Your task to perform on an android device: turn on translation in the chrome app Image 0: 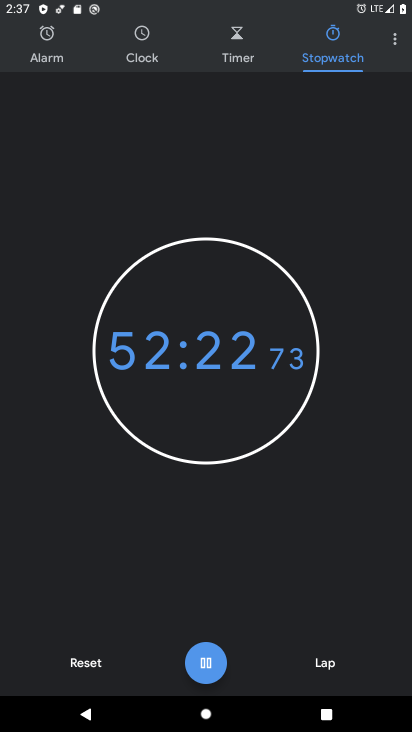
Step 0: press home button
Your task to perform on an android device: turn on translation in the chrome app Image 1: 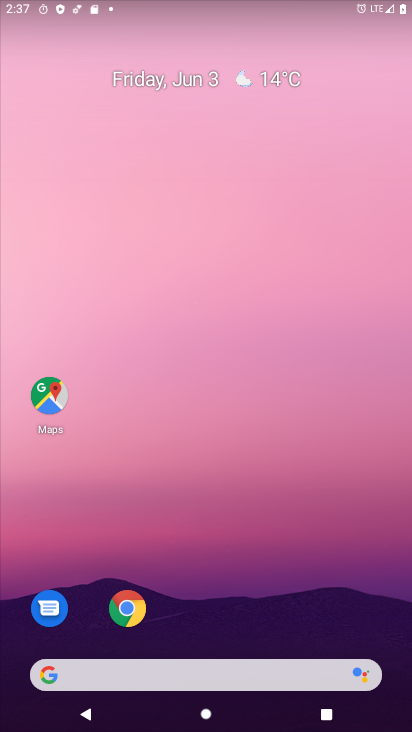
Step 1: click (132, 611)
Your task to perform on an android device: turn on translation in the chrome app Image 2: 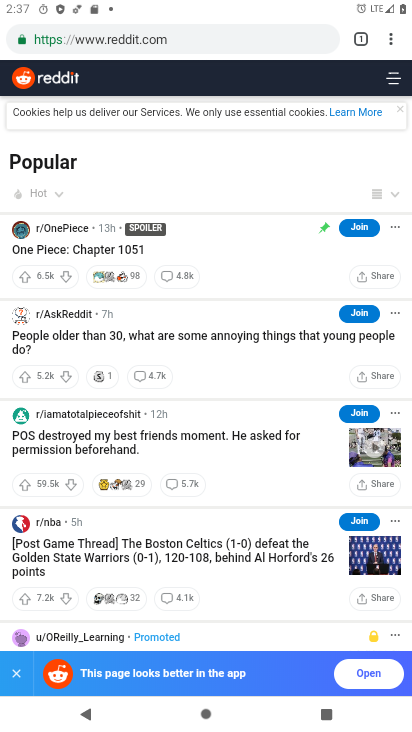
Step 2: drag from (389, 36) to (275, 514)
Your task to perform on an android device: turn on translation in the chrome app Image 3: 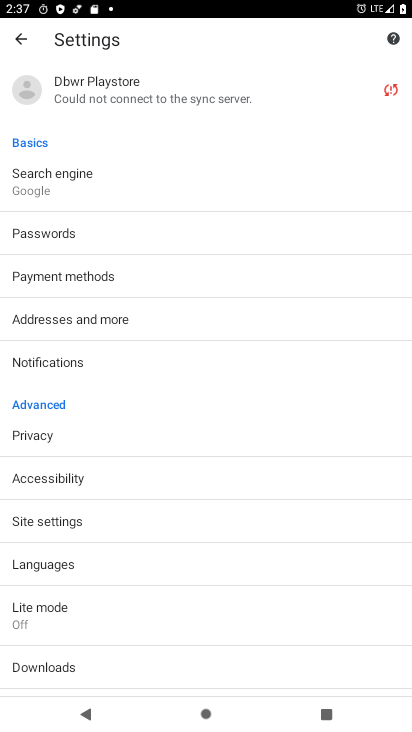
Step 3: click (88, 555)
Your task to perform on an android device: turn on translation in the chrome app Image 4: 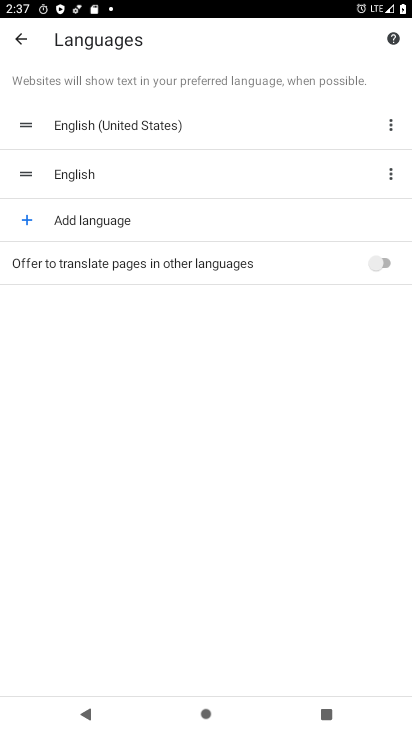
Step 4: click (378, 263)
Your task to perform on an android device: turn on translation in the chrome app Image 5: 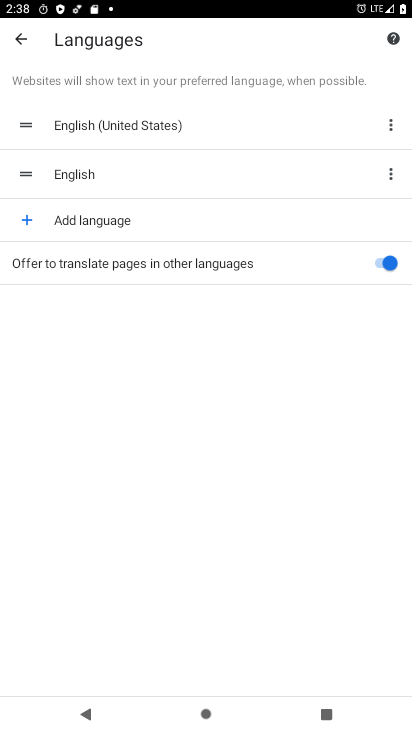
Step 5: task complete